Your task to perform on an android device: clear history in the chrome app Image 0: 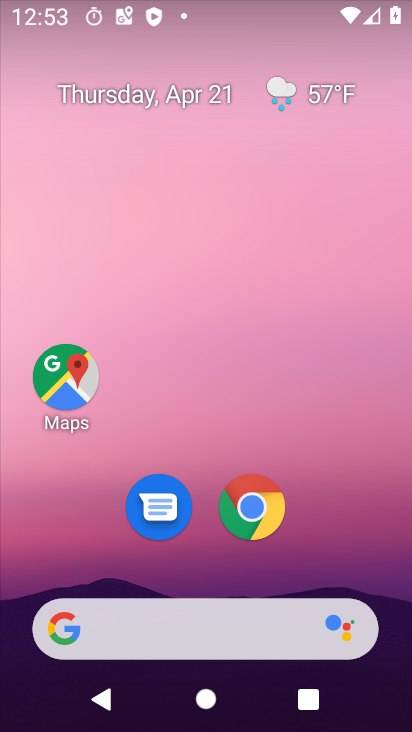
Step 0: drag from (182, 588) to (203, 273)
Your task to perform on an android device: clear history in the chrome app Image 1: 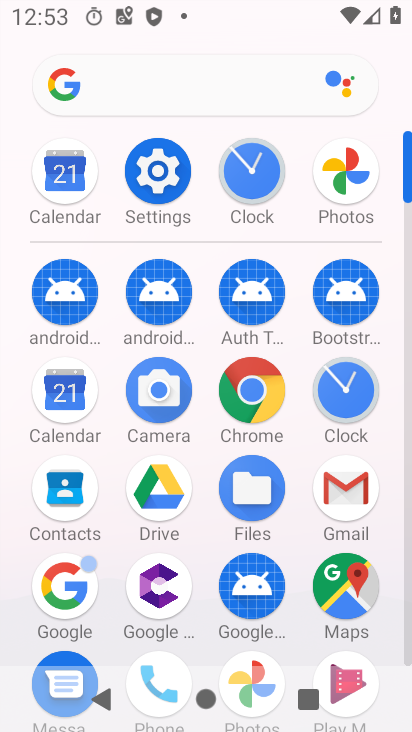
Step 1: click (254, 387)
Your task to perform on an android device: clear history in the chrome app Image 2: 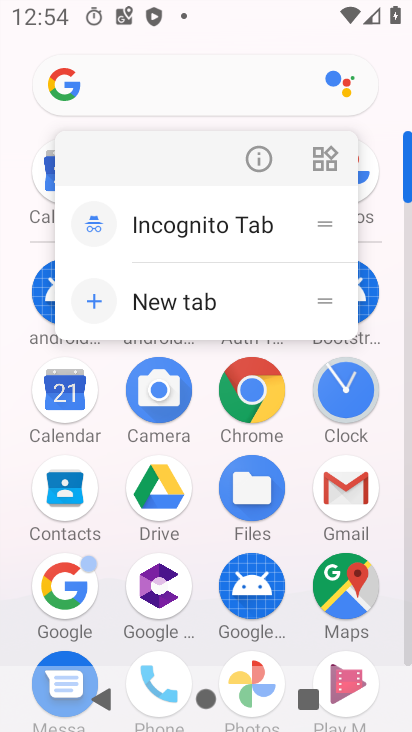
Step 2: click (263, 171)
Your task to perform on an android device: clear history in the chrome app Image 3: 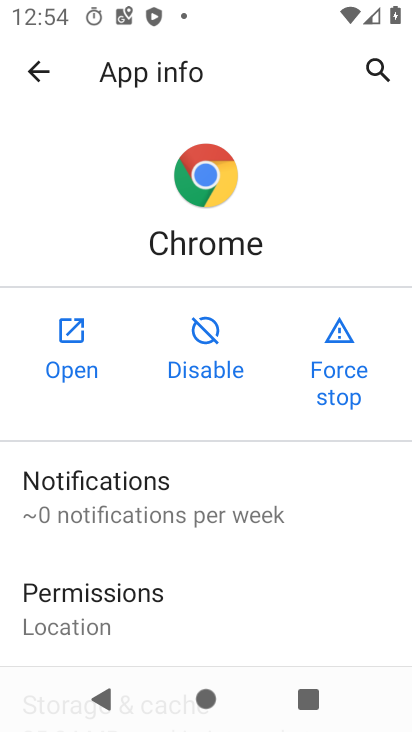
Step 3: click (70, 339)
Your task to perform on an android device: clear history in the chrome app Image 4: 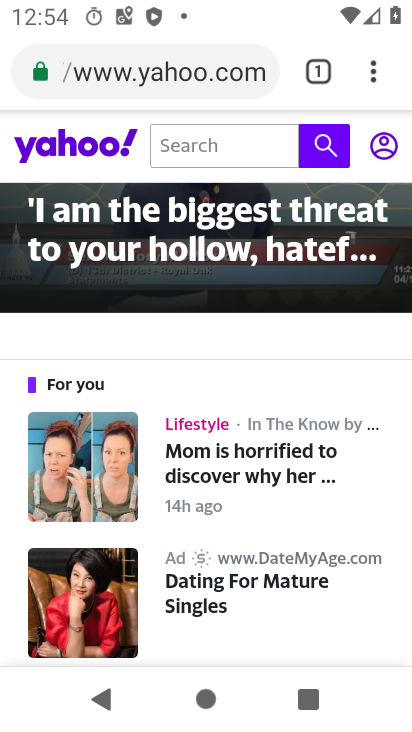
Step 4: drag from (378, 67) to (160, 390)
Your task to perform on an android device: clear history in the chrome app Image 5: 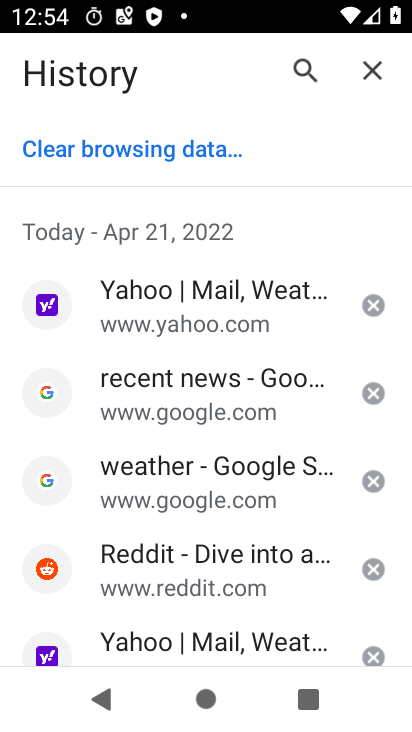
Step 5: click (150, 148)
Your task to perform on an android device: clear history in the chrome app Image 6: 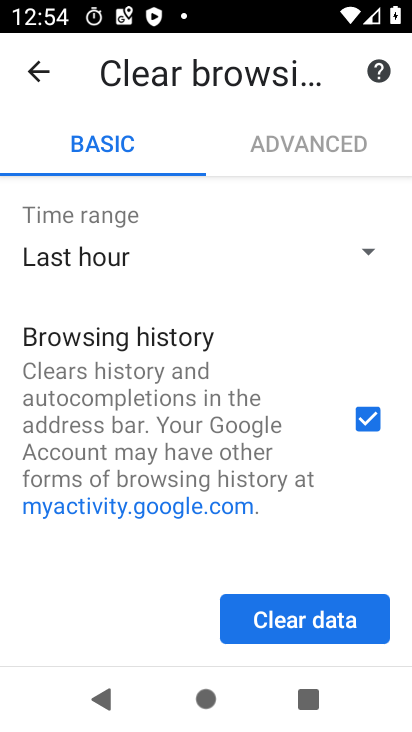
Step 6: drag from (223, 474) to (315, 236)
Your task to perform on an android device: clear history in the chrome app Image 7: 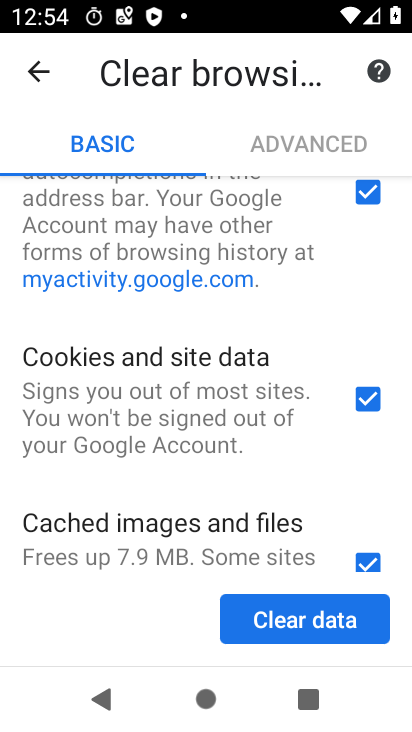
Step 7: drag from (258, 463) to (270, 290)
Your task to perform on an android device: clear history in the chrome app Image 8: 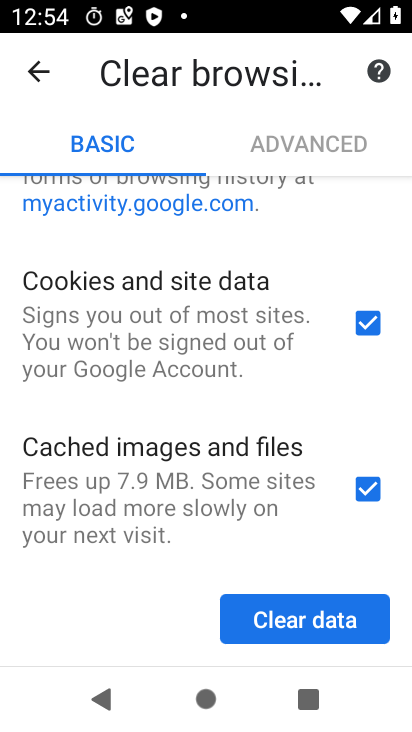
Step 8: click (314, 607)
Your task to perform on an android device: clear history in the chrome app Image 9: 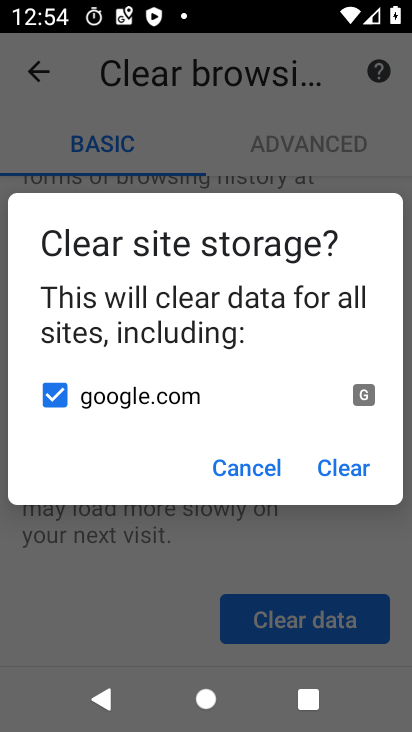
Step 9: click (338, 471)
Your task to perform on an android device: clear history in the chrome app Image 10: 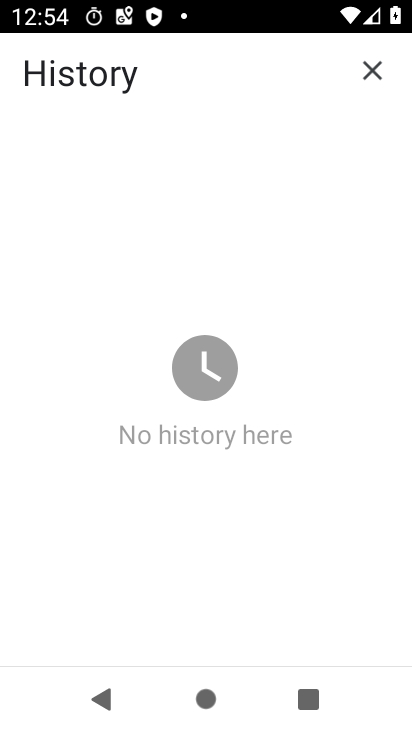
Step 10: task complete